Your task to perform on an android device: Open Android settings Image 0: 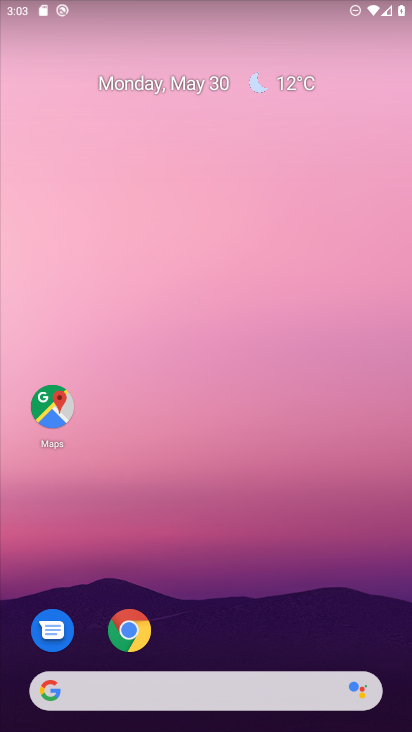
Step 0: drag from (189, 682) to (149, 131)
Your task to perform on an android device: Open Android settings Image 1: 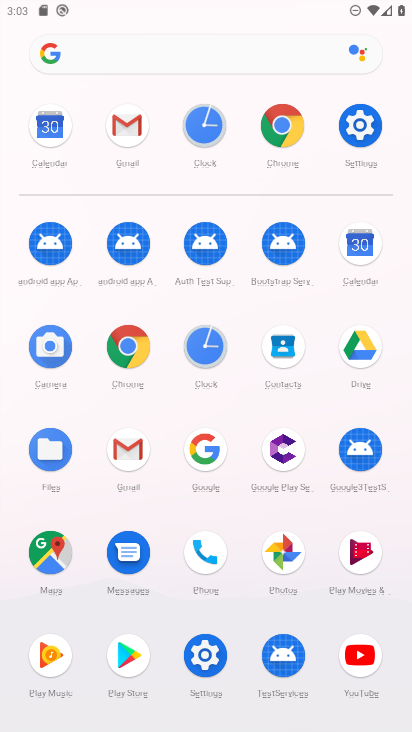
Step 1: click (385, 134)
Your task to perform on an android device: Open Android settings Image 2: 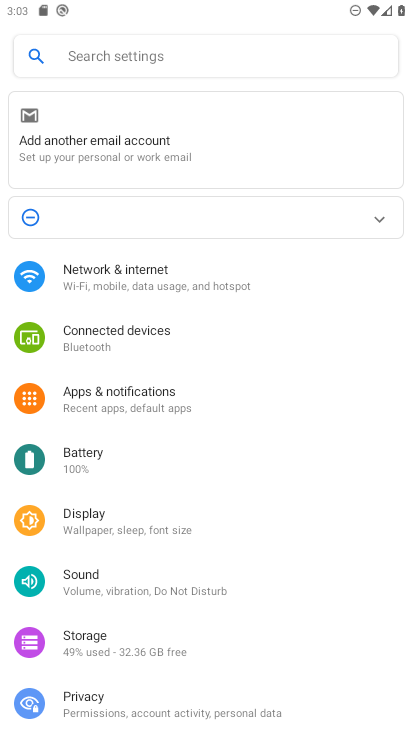
Step 2: task complete